Your task to perform on an android device: Search for pizza restaurants on Maps Image 0: 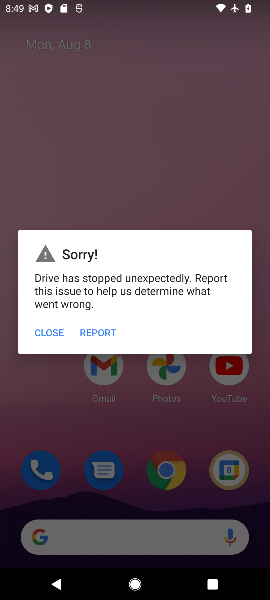
Step 0: click (101, 169)
Your task to perform on an android device: Search for pizza restaurants on Maps Image 1: 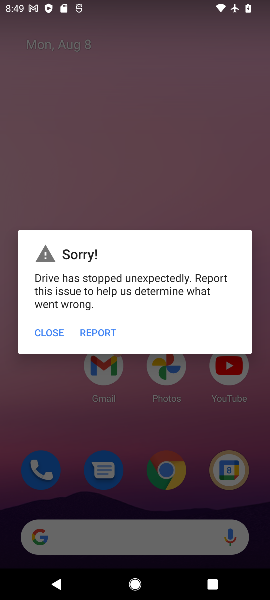
Step 1: click (37, 333)
Your task to perform on an android device: Search for pizza restaurants on Maps Image 2: 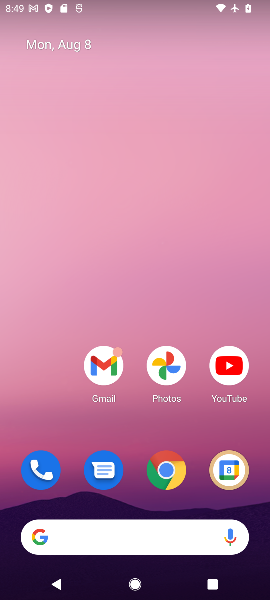
Step 2: drag from (145, 516) to (139, 245)
Your task to perform on an android device: Search for pizza restaurants on Maps Image 3: 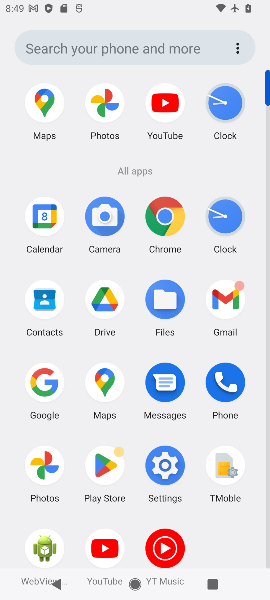
Step 3: click (103, 386)
Your task to perform on an android device: Search for pizza restaurants on Maps Image 4: 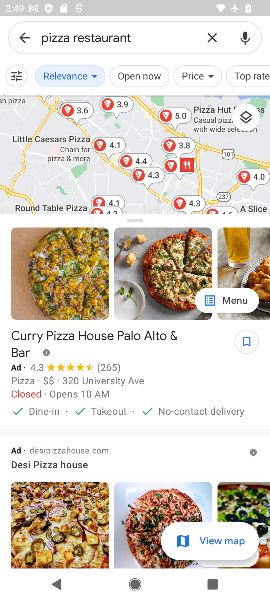
Step 4: task complete